Your task to perform on an android device: Go to CNN.com Image 0: 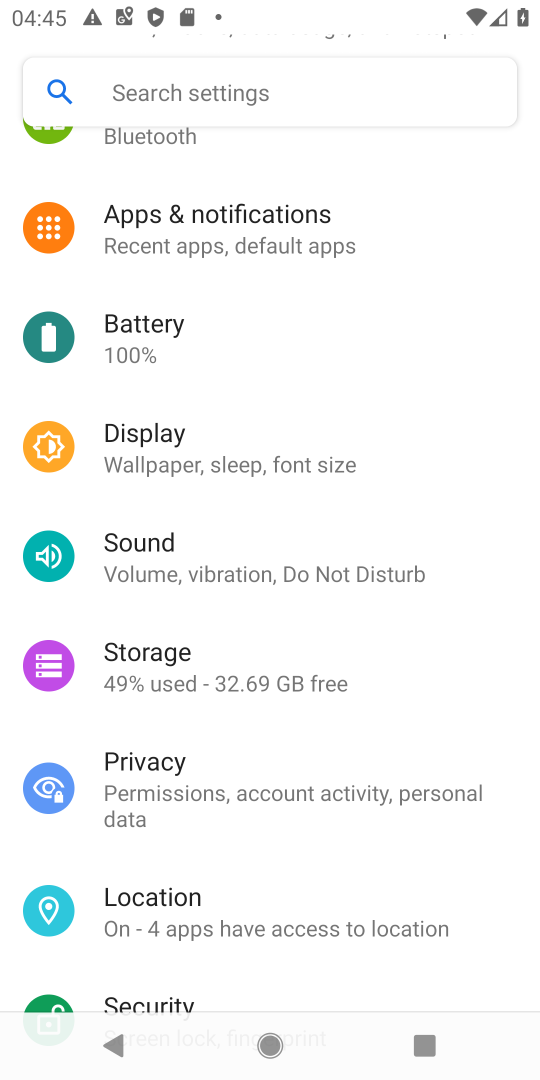
Step 0: press home button
Your task to perform on an android device: Go to CNN.com Image 1: 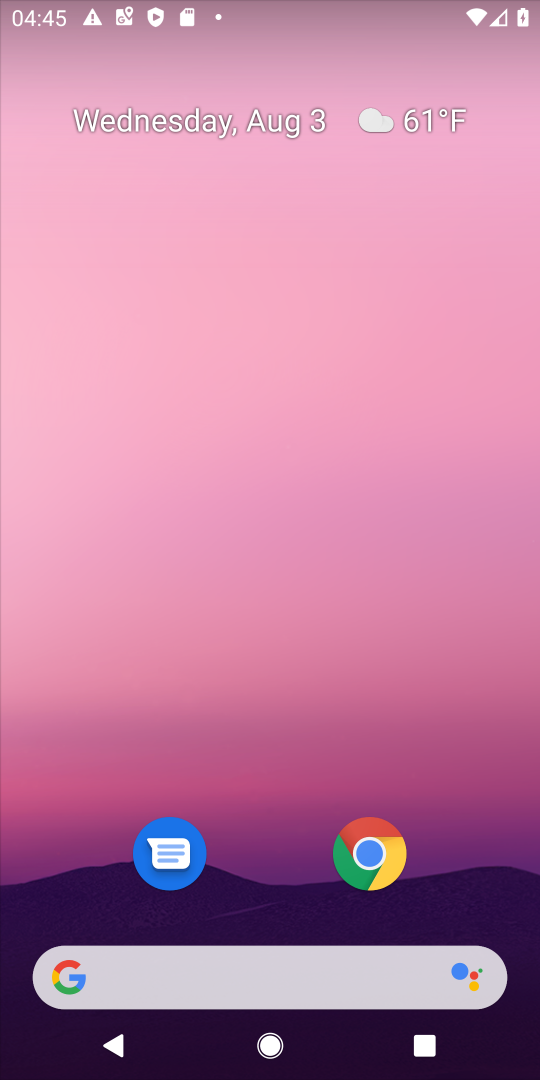
Step 1: click (367, 850)
Your task to perform on an android device: Go to CNN.com Image 2: 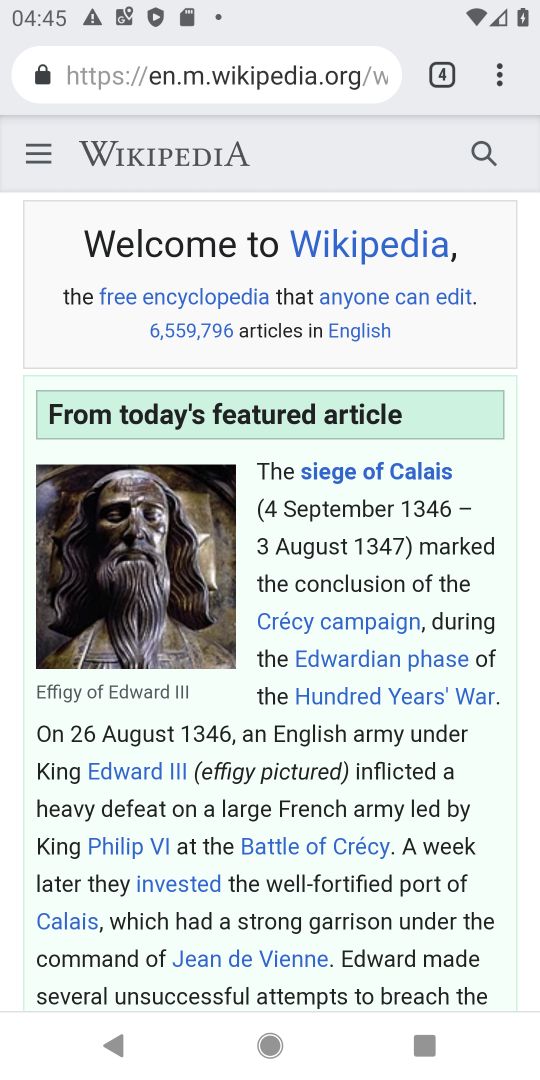
Step 2: click (497, 79)
Your task to perform on an android device: Go to CNN.com Image 3: 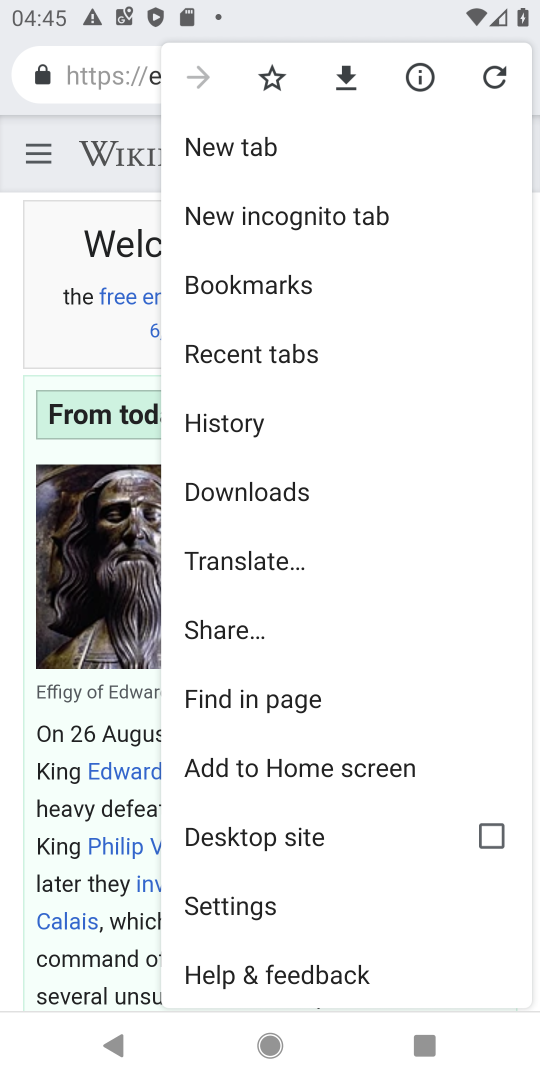
Step 3: click (260, 138)
Your task to perform on an android device: Go to CNN.com Image 4: 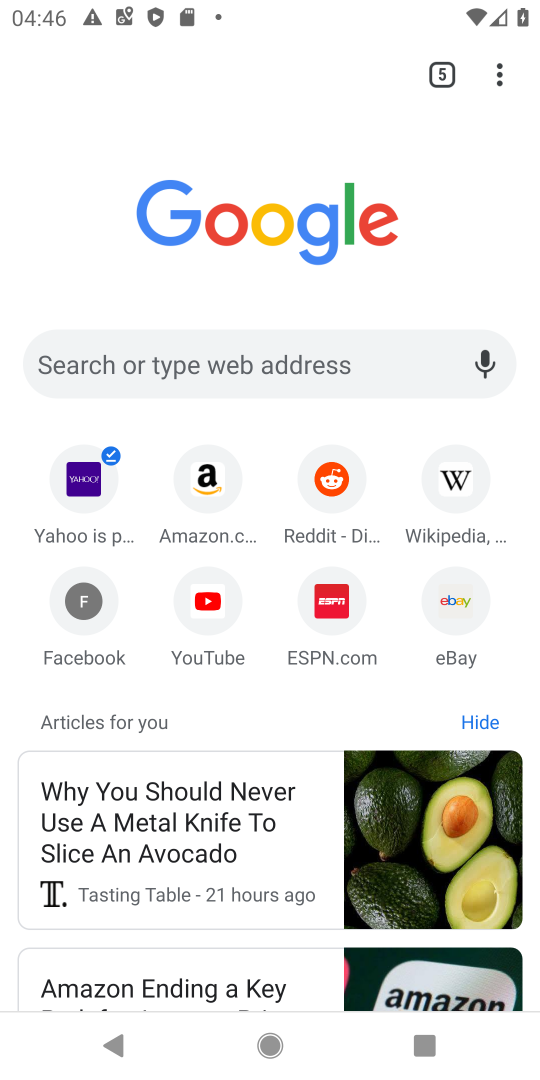
Step 4: click (262, 363)
Your task to perform on an android device: Go to CNN.com Image 5: 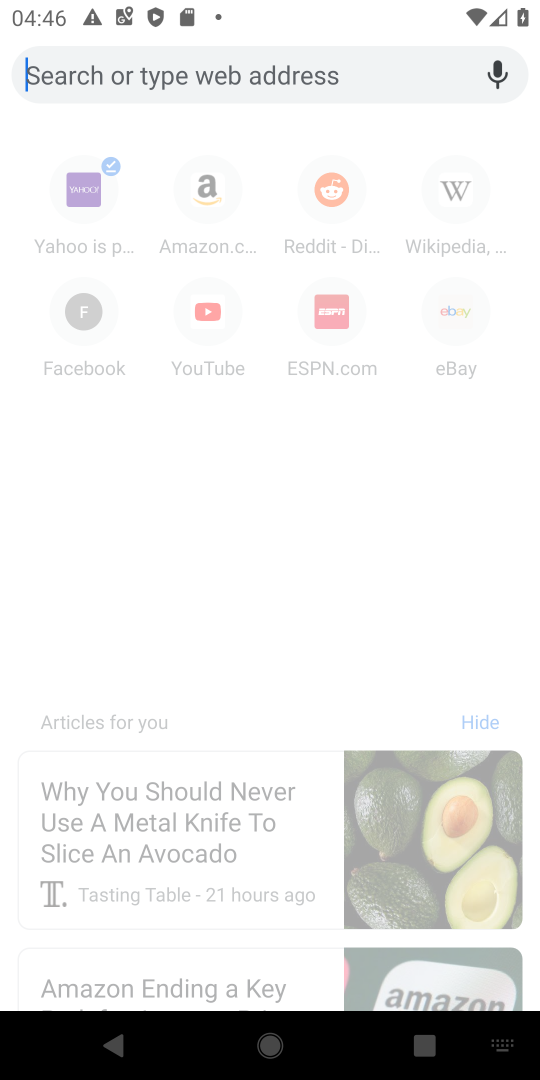
Step 5: type "CNN.com"
Your task to perform on an android device: Go to CNN.com Image 6: 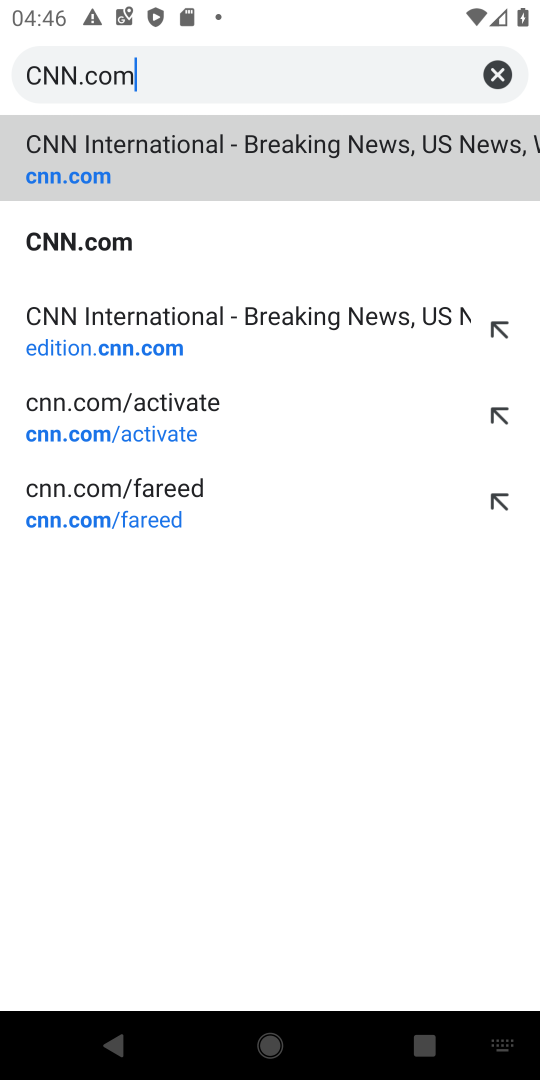
Step 6: type ""
Your task to perform on an android device: Go to CNN.com Image 7: 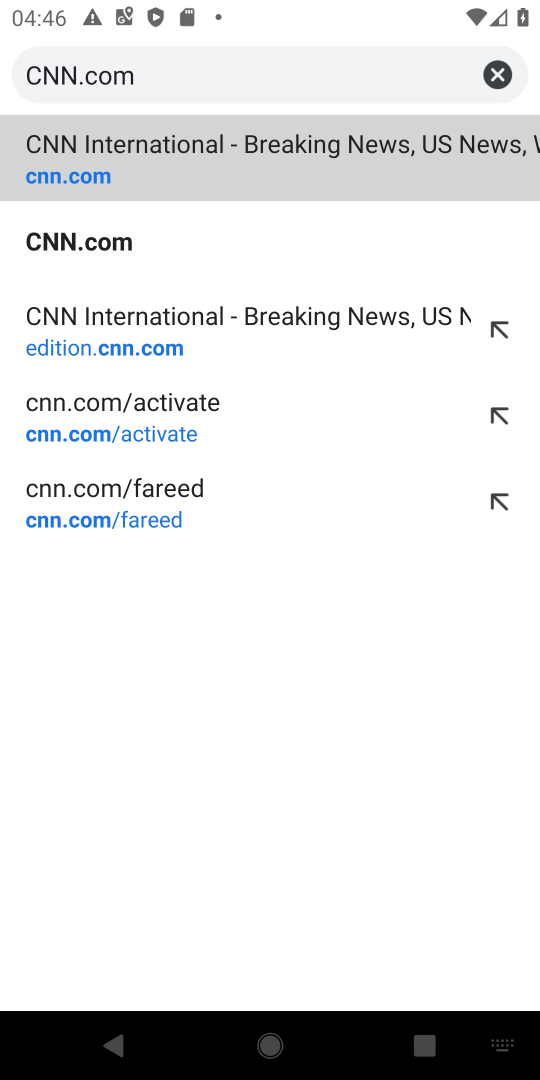
Step 7: click (84, 149)
Your task to perform on an android device: Go to CNN.com Image 8: 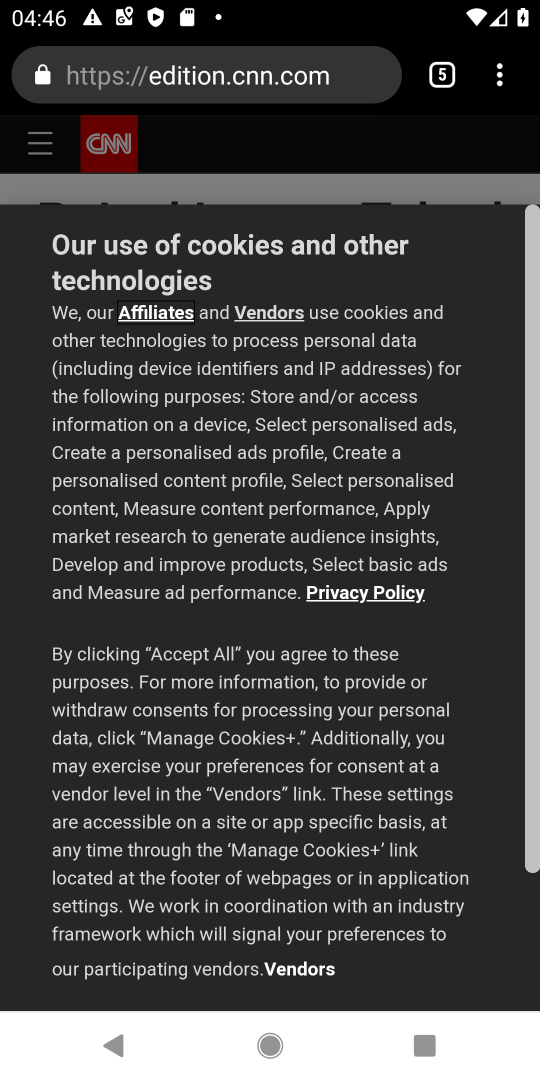
Step 8: task complete